Your task to perform on an android device: toggle priority inbox in the gmail app Image 0: 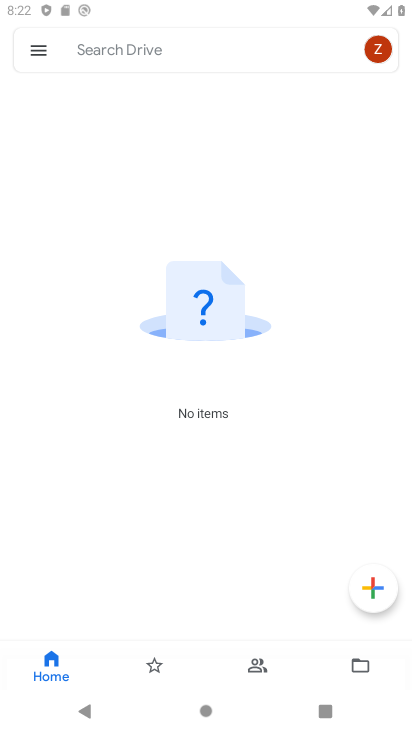
Step 0: press home button
Your task to perform on an android device: toggle priority inbox in the gmail app Image 1: 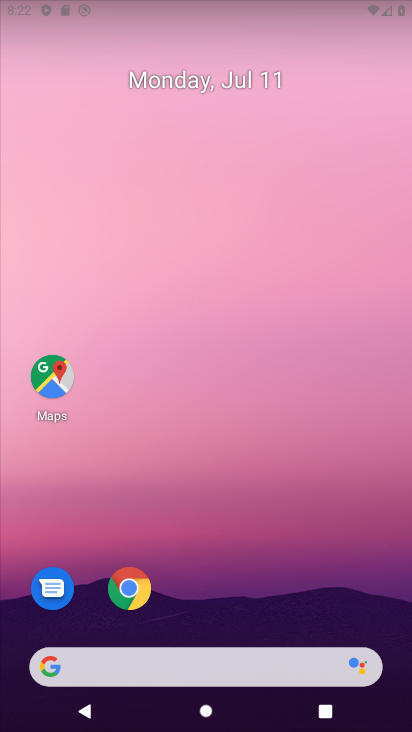
Step 1: drag from (170, 685) to (250, 70)
Your task to perform on an android device: toggle priority inbox in the gmail app Image 2: 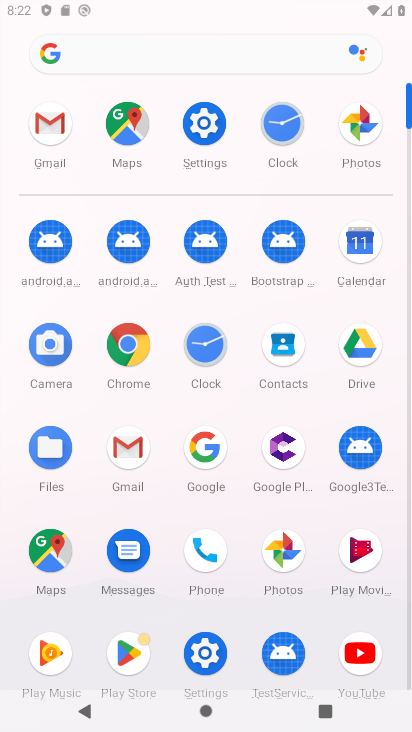
Step 2: click (128, 423)
Your task to perform on an android device: toggle priority inbox in the gmail app Image 3: 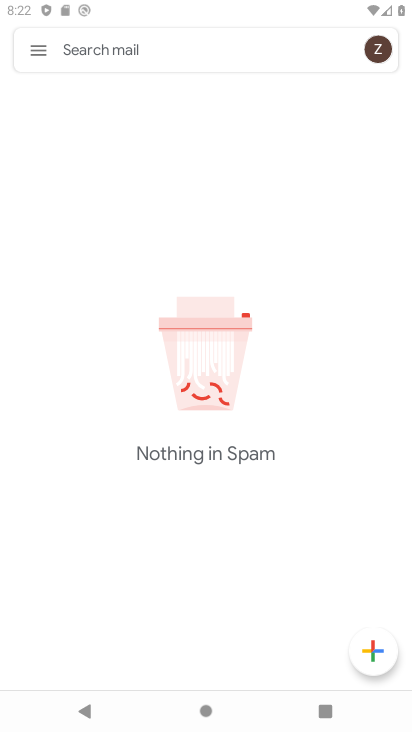
Step 3: click (33, 48)
Your task to perform on an android device: toggle priority inbox in the gmail app Image 4: 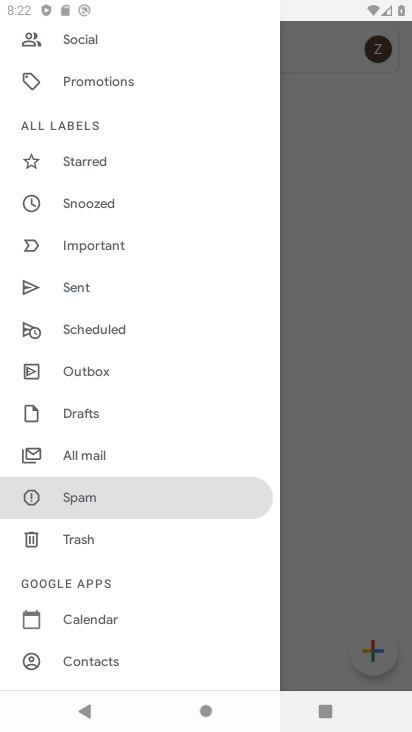
Step 4: drag from (170, 612) to (194, 170)
Your task to perform on an android device: toggle priority inbox in the gmail app Image 5: 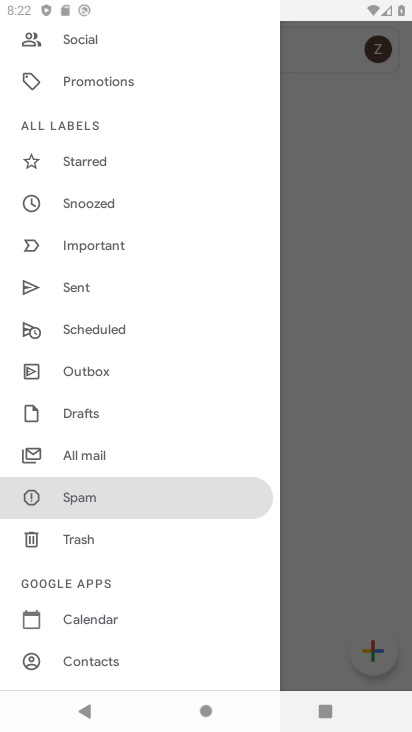
Step 5: drag from (260, 582) to (174, 31)
Your task to perform on an android device: toggle priority inbox in the gmail app Image 6: 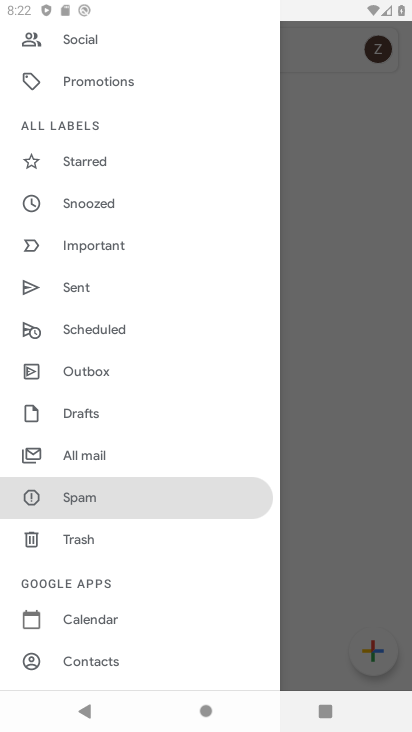
Step 6: drag from (90, 663) to (141, 37)
Your task to perform on an android device: toggle priority inbox in the gmail app Image 7: 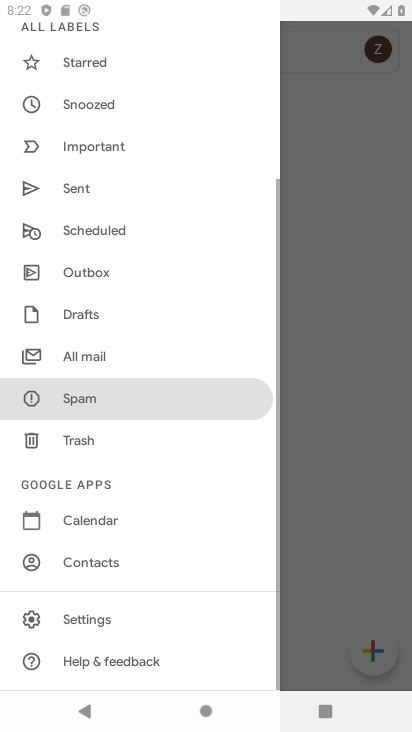
Step 7: click (70, 626)
Your task to perform on an android device: toggle priority inbox in the gmail app Image 8: 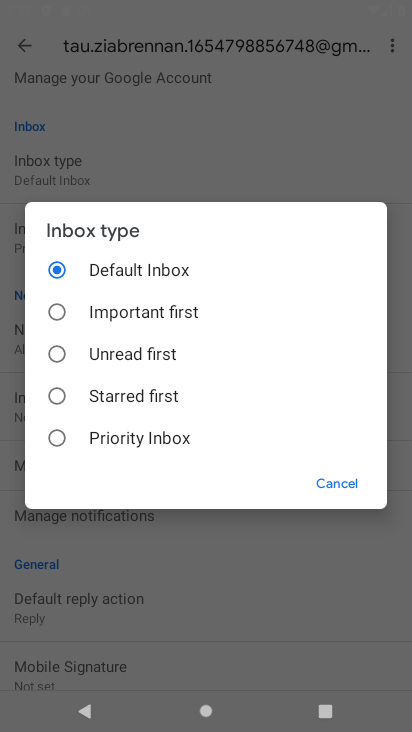
Step 8: click (136, 436)
Your task to perform on an android device: toggle priority inbox in the gmail app Image 9: 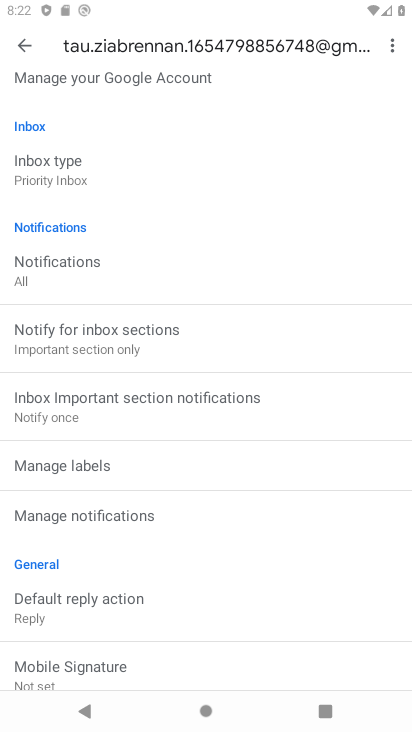
Step 9: task complete